Your task to perform on an android device: delete a single message in the gmail app Image 0: 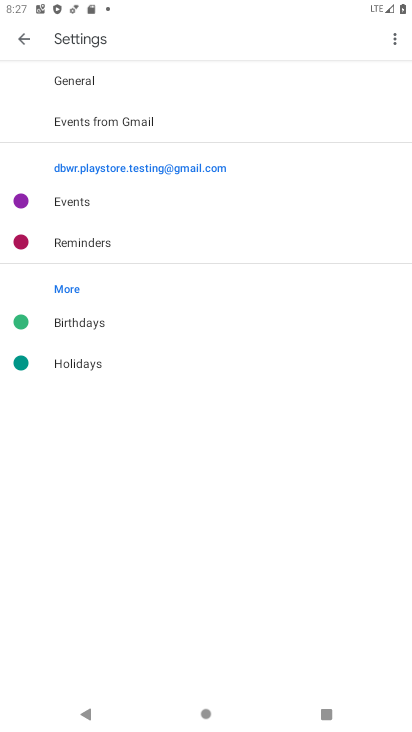
Step 0: press home button
Your task to perform on an android device: delete a single message in the gmail app Image 1: 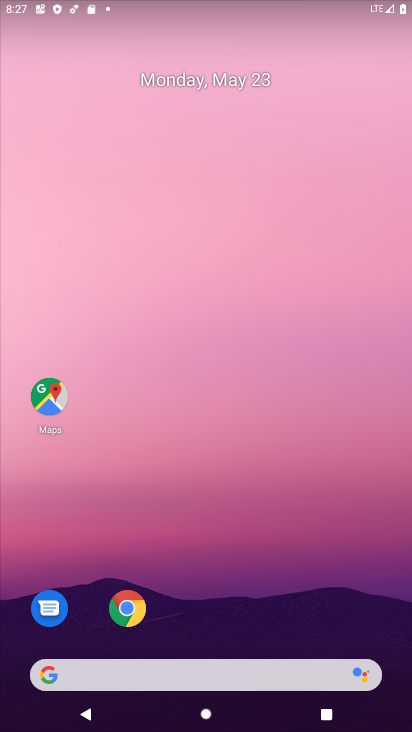
Step 1: drag from (198, 666) to (197, 316)
Your task to perform on an android device: delete a single message in the gmail app Image 2: 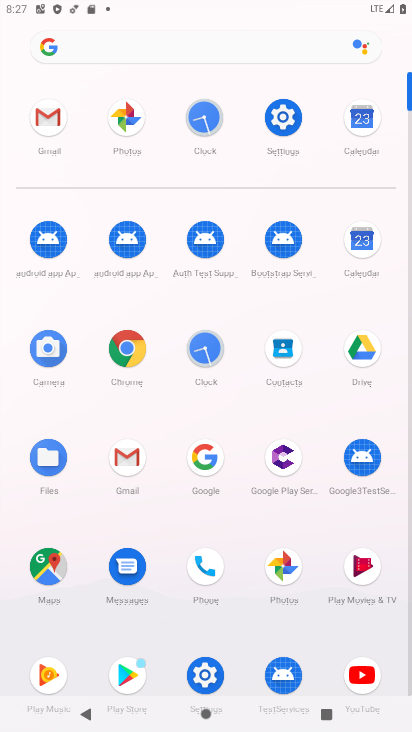
Step 2: click (115, 482)
Your task to perform on an android device: delete a single message in the gmail app Image 3: 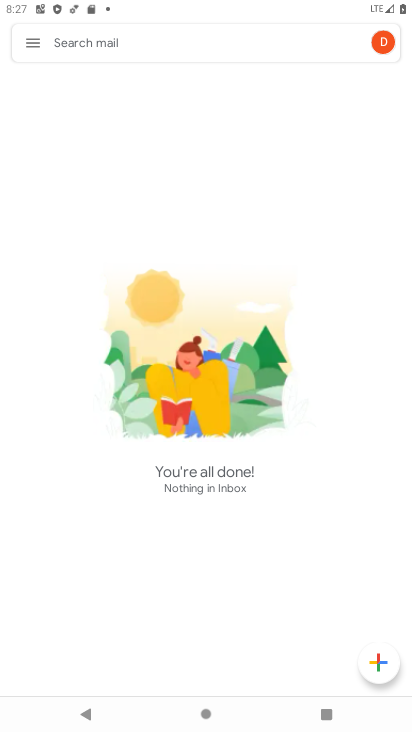
Step 3: task complete